Your task to perform on an android device: open a new tab in the chrome app Image 0: 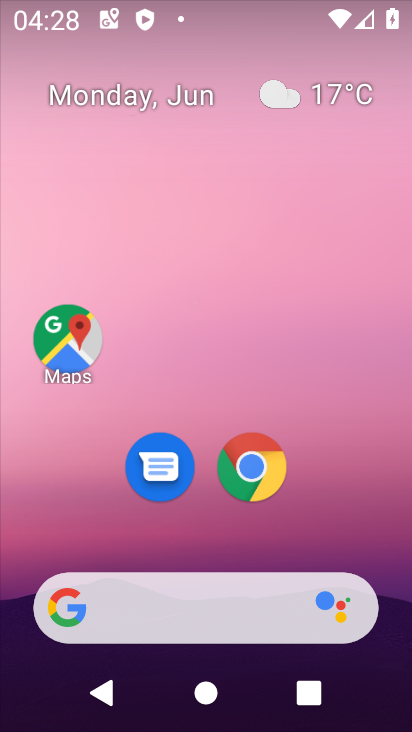
Step 0: click (260, 461)
Your task to perform on an android device: open a new tab in the chrome app Image 1: 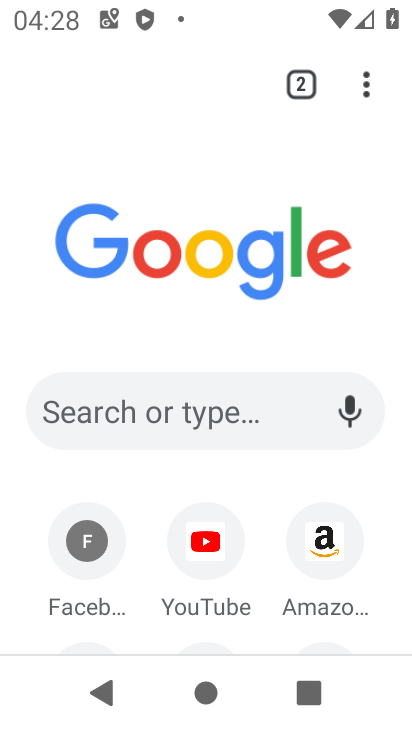
Step 1: click (358, 75)
Your task to perform on an android device: open a new tab in the chrome app Image 2: 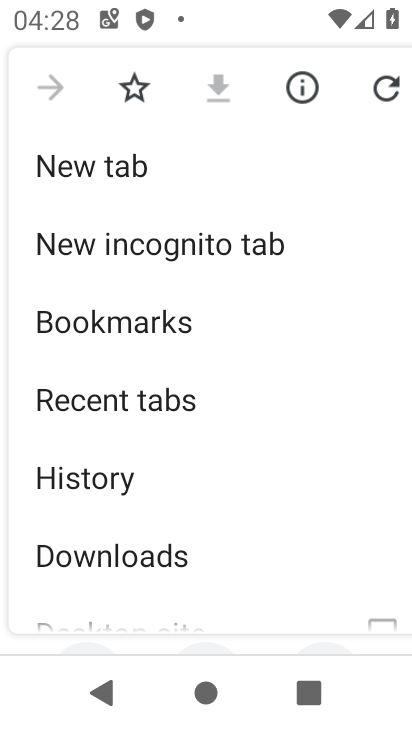
Step 2: click (120, 176)
Your task to perform on an android device: open a new tab in the chrome app Image 3: 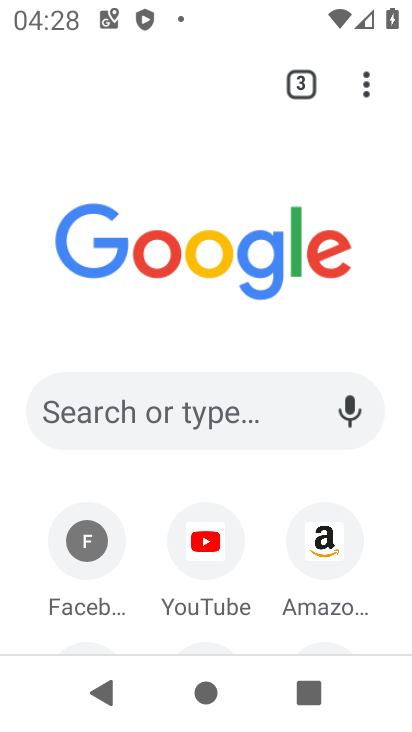
Step 3: task complete